Your task to perform on an android device: Open eBay Image 0: 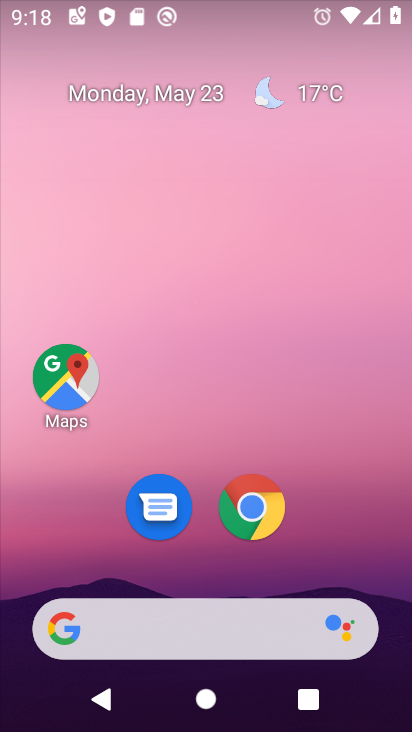
Step 0: click (250, 511)
Your task to perform on an android device: Open eBay Image 1: 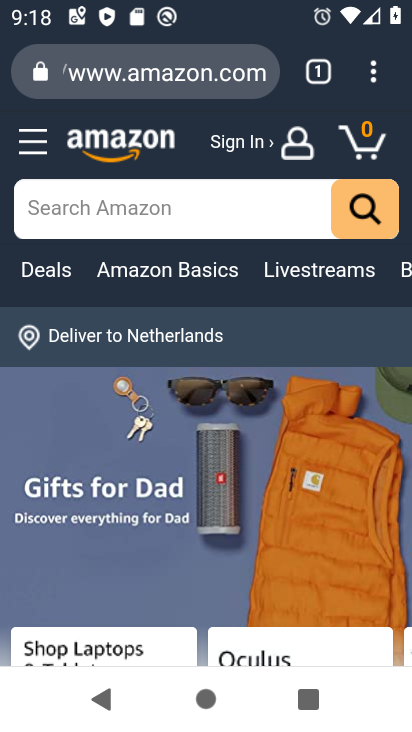
Step 1: click (118, 70)
Your task to perform on an android device: Open eBay Image 2: 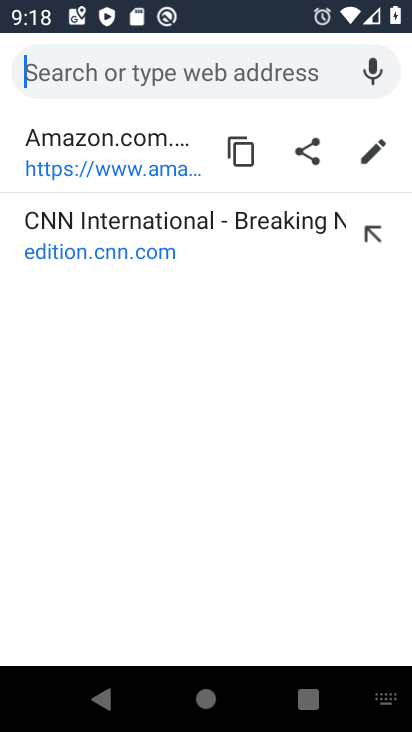
Step 2: type "ebay"
Your task to perform on an android device: Open eBay Image 3: 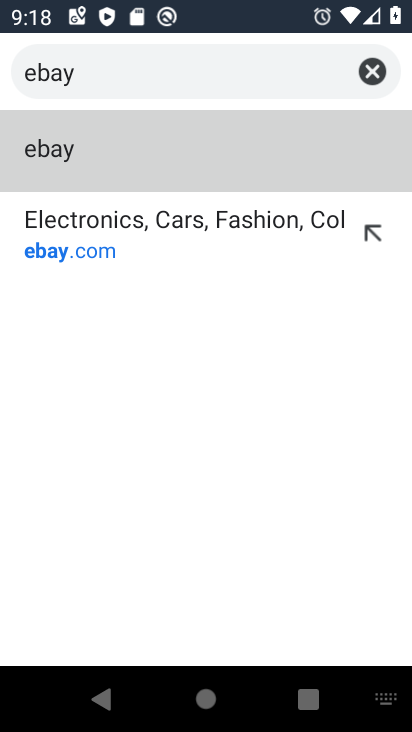
Step 3: click (34, 153)
Your task to perform on an android device: Open eBay Image 4: 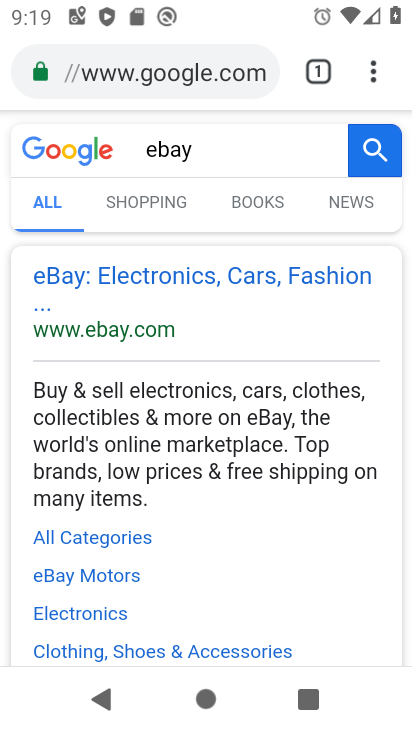
Step 4: click (80, 340)
Your task to perform on an android device: Open eBay Image 5: 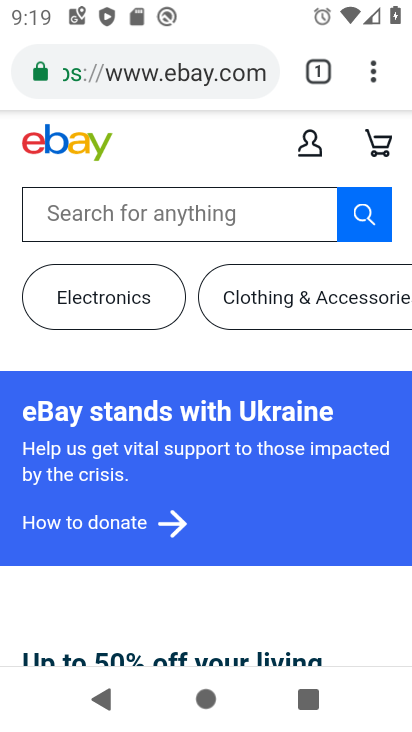
Step 5: task complete